Your task to perform on an android device: turn off wifi Image 0: 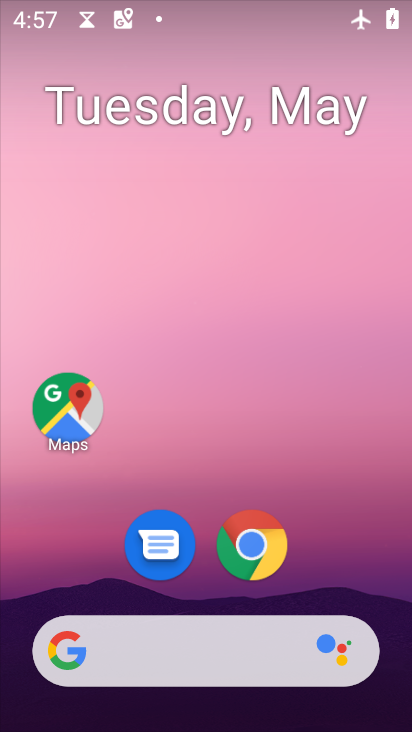
Step 0: drag from (333, 559) to (266, 180)
Your task to perform on an android device: turn off wifi Image 1: 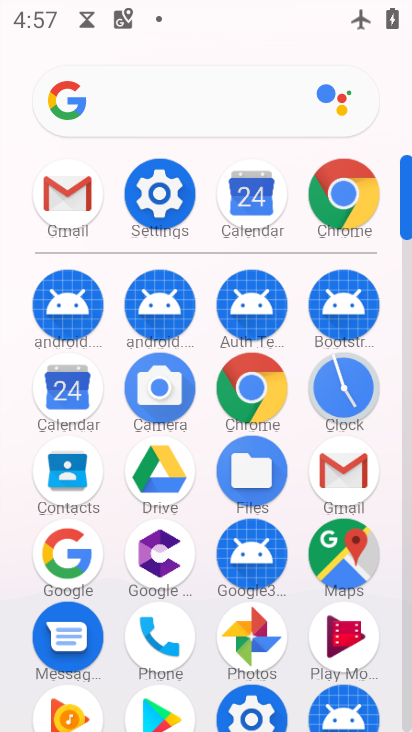
Step 1: click (162, 194)
Your task to perform on an android device: turn off wifi Image 2: 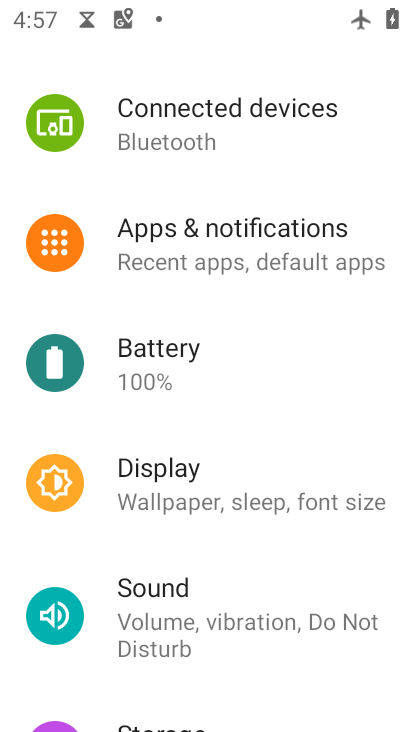
Step 2: drag from (198, 205) to (246, 351)
Your task to perform on an android device: turn off wifi Image 3: 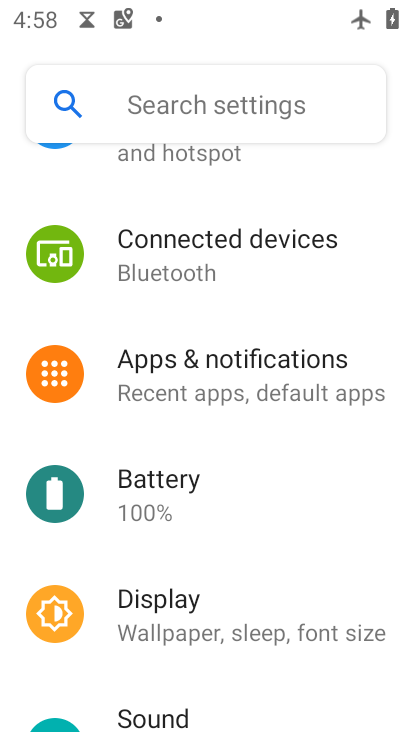
Step 3: drag from (238, 284) to (269, 424)
Your task to perform on an android device: turn off wifi Image 4: 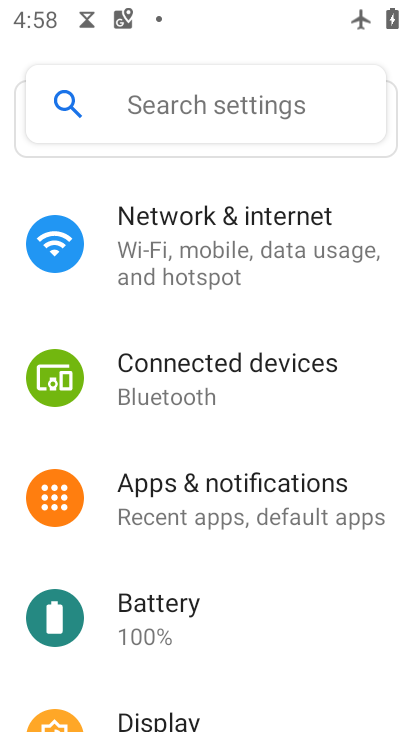
Step 4: click (236, 250)
Your task to perform on an android device: turn off wifi Image 5: 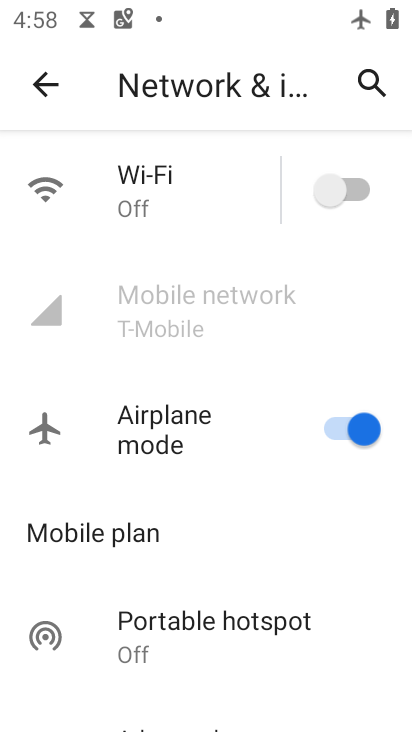
Step 5: task complete